Your task to perform on an android device: Go to notification settings Image 0: 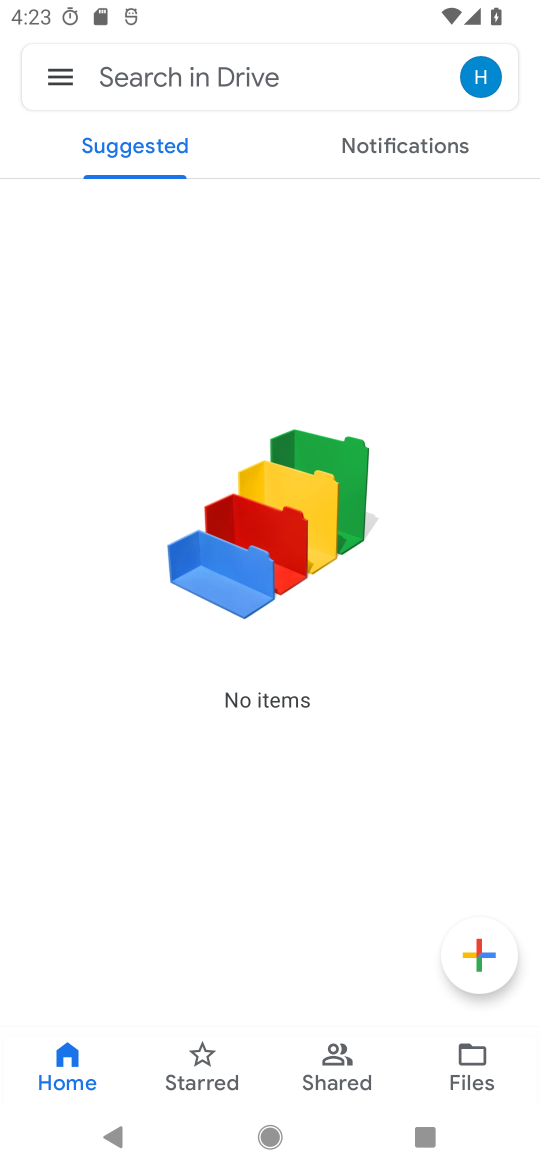
Step 0: press home button
Your task to perform on an android device: Go to notification settings Image 1: 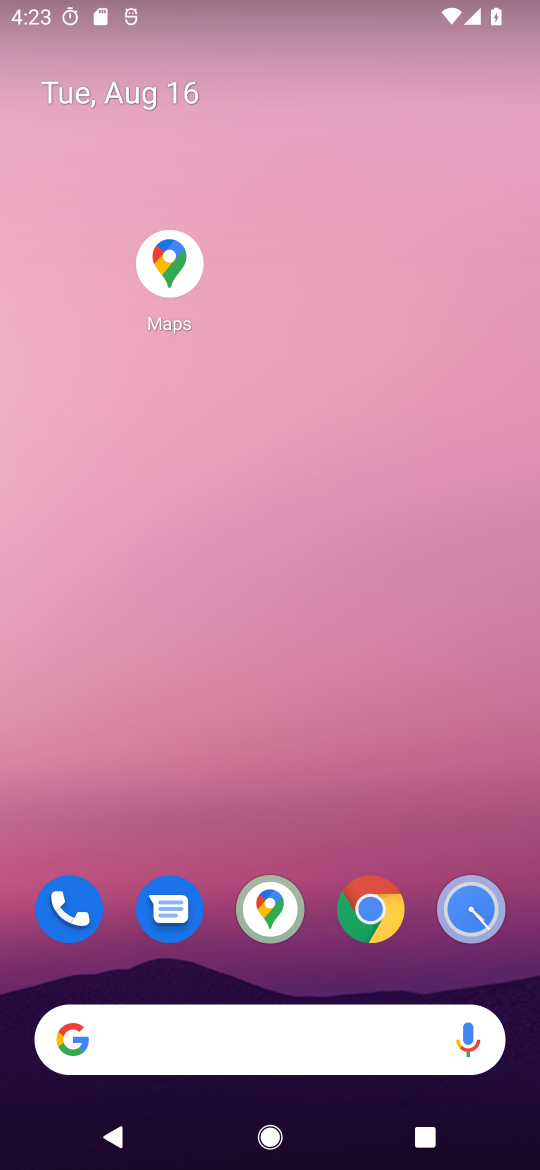
Step 1: drag from (264, 875) to (418, 15)
Your task to perform on an android device: Go to notification settings Image 2: 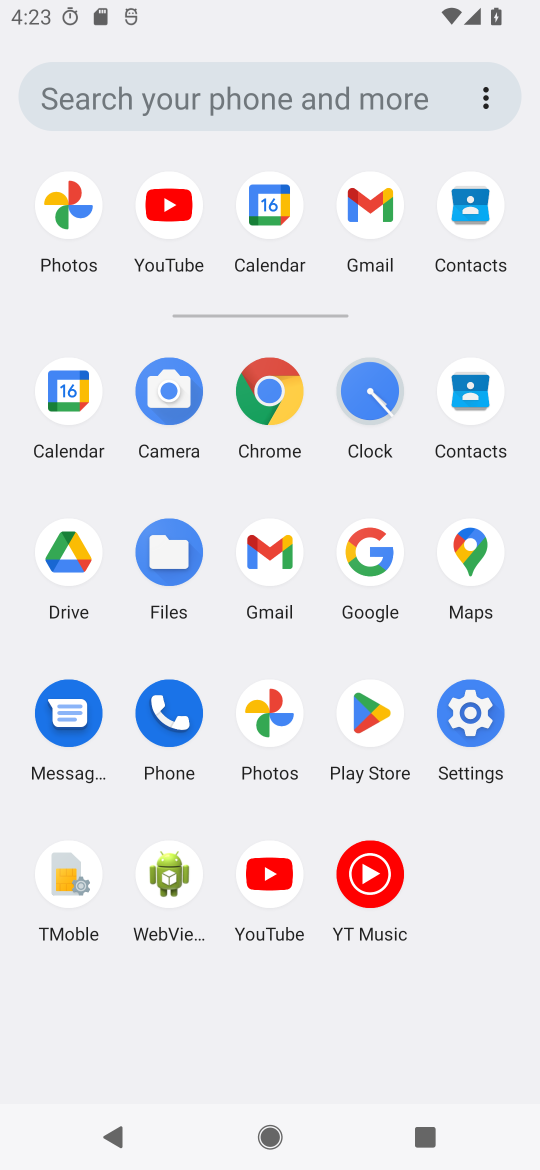
Step 2: click (480, 719)
Your task to perform on an android device: Go to notification settings Image 3: 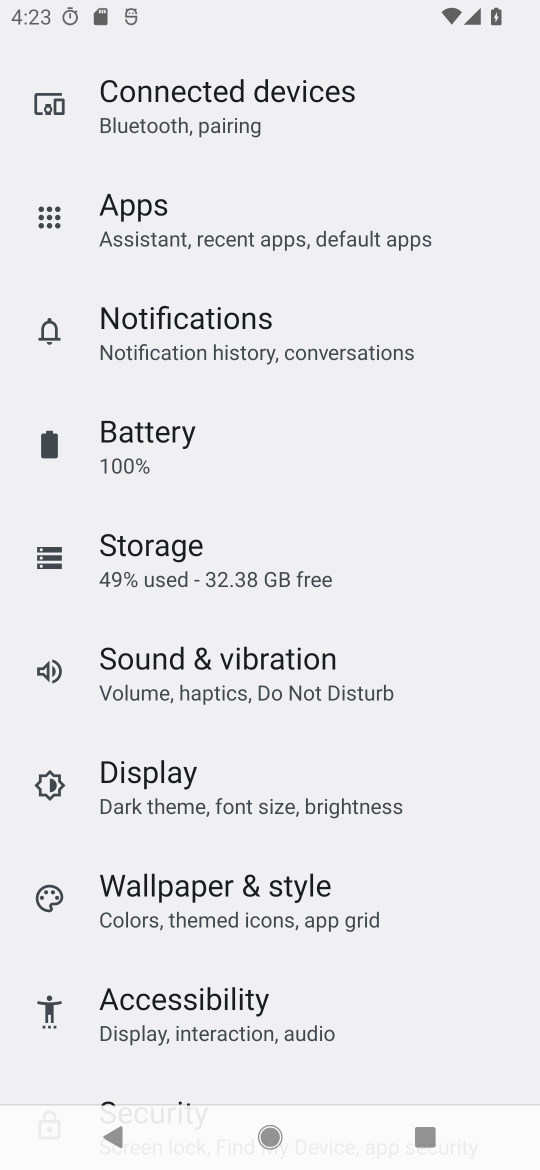
Step 3: click (189, 349)
Your task to perform on an android device: Go to notification settings Image 4: 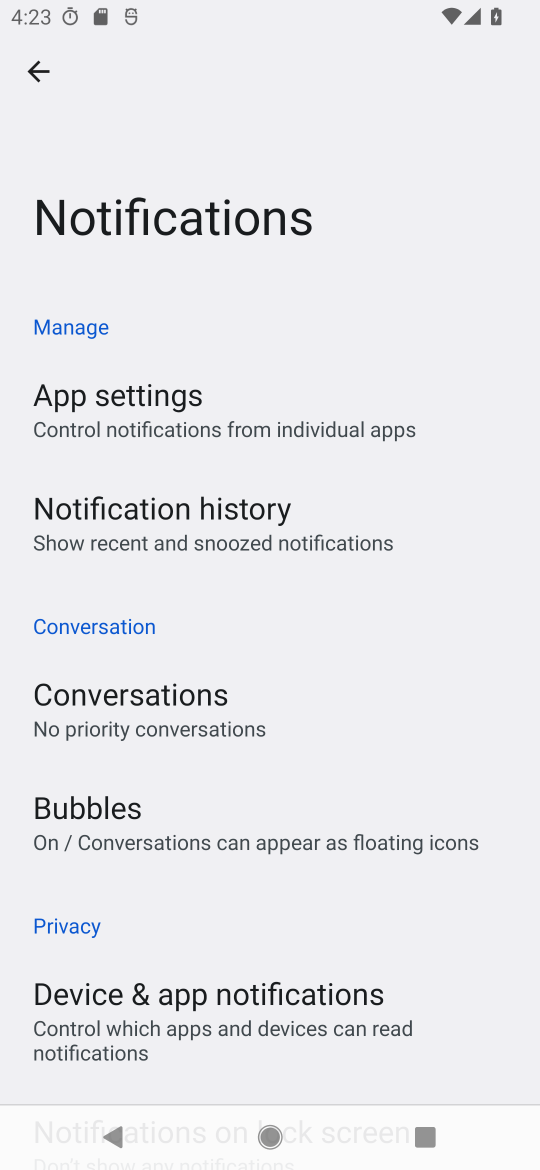
Step 4: task complete